Your task to perform on an android device: open the mobile data screen to see how much data has been used Image 0: 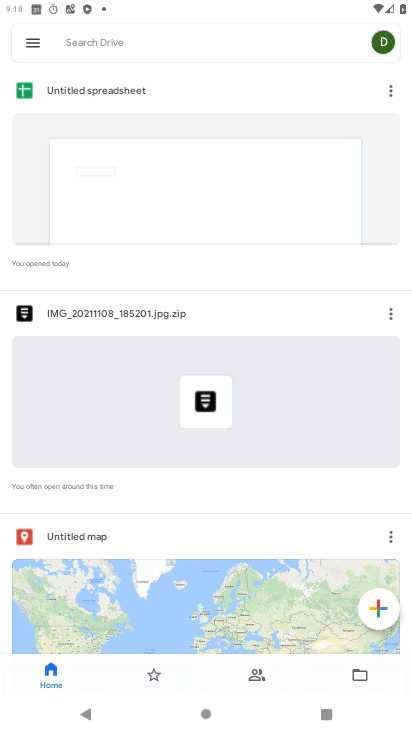
Step 0: press home button
Your task to perform on an android device: open the mobile data screen to see how much data has been used Image 1: 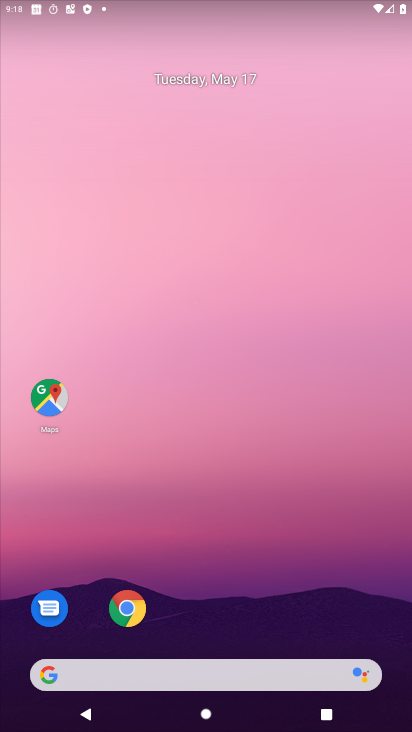
Step 1: drag from (327, 519) to (330, 127)
Your task to perform on an android device: open the mobile data screen to see how much data has been used Image 2: 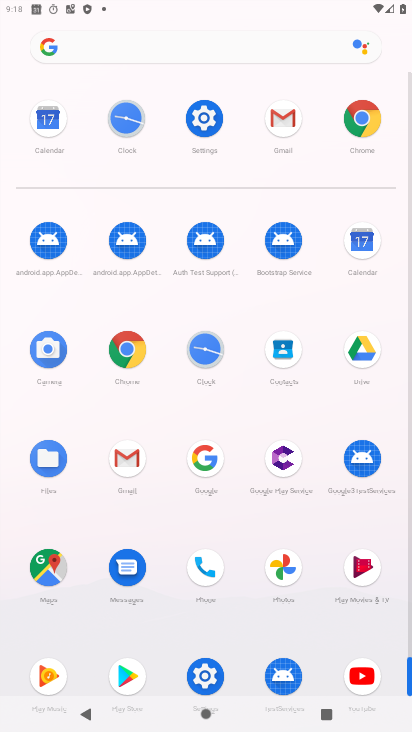
Step 2: drag from (224, 527) to (232, 268)
Your task to perform on an android device: open the mobile data screen to see how much data has been used Image 3: 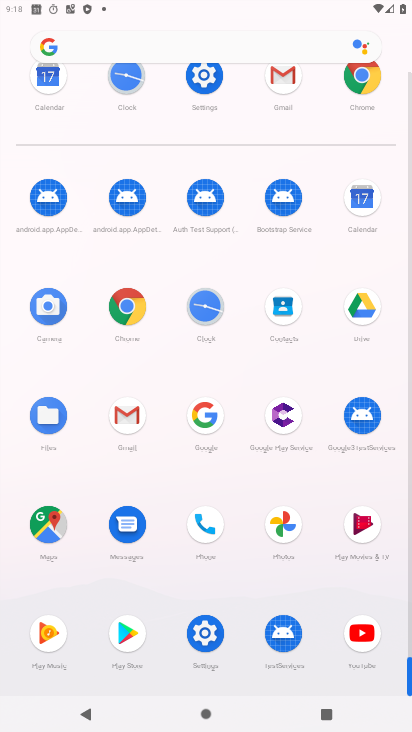
Step 3: click (206, 629)
Your task to perform on an android device: open the mobile data screen to see how much data has been used Image 4: 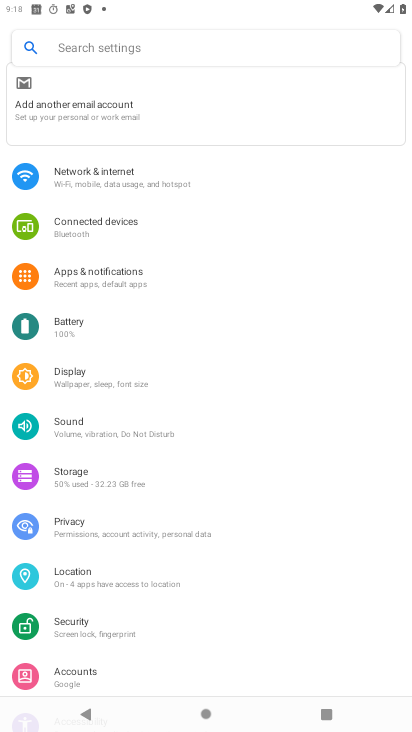
Step 4: click (148, 175)
Your task to perform on an android device: open the mobile data screen to see how much data has been used Image 5: 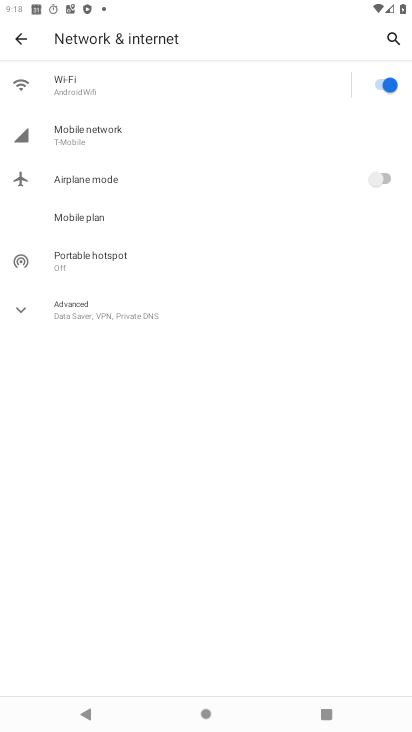
Step 5: task complete